Your task to perform on an android device: Check the weather Image 0: 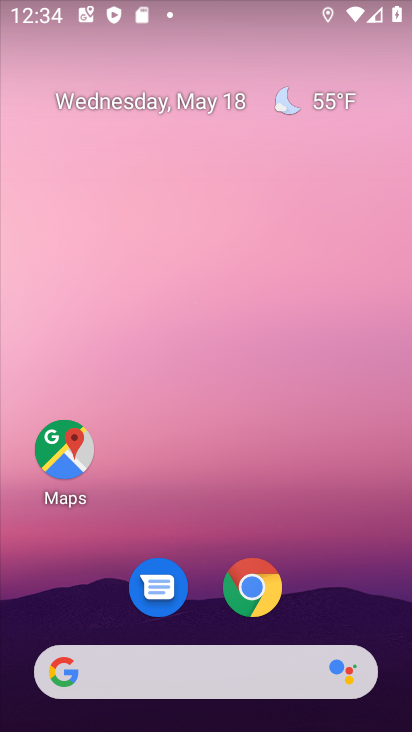
Step 0: click (200, 671)
Your task to perform on an android device: Check the weather Image 1: 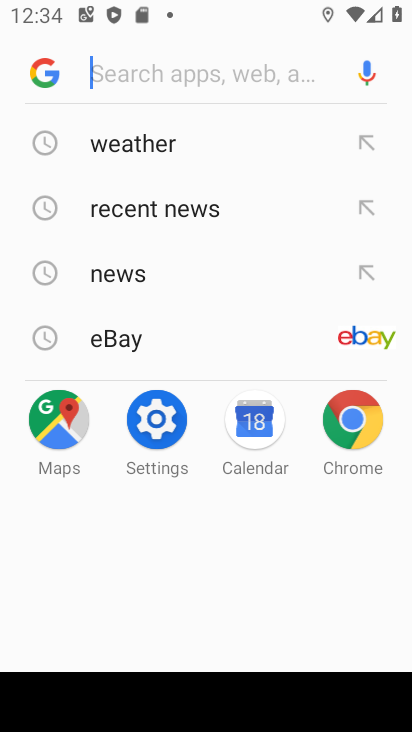
Step 1: click (169, 149)
Your task to perform on an android device: Check the weather Image 2: 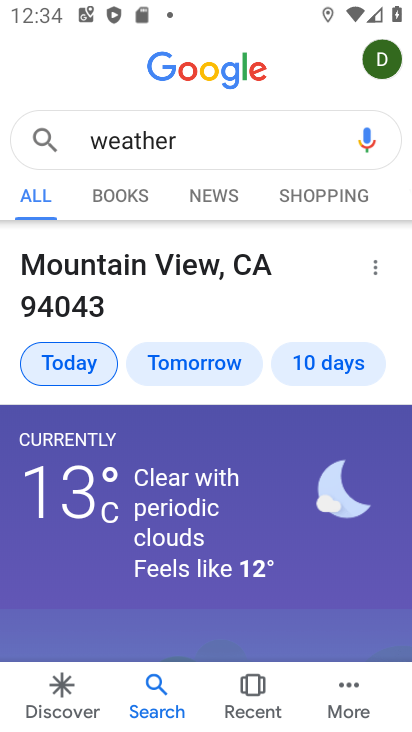
Step 2: task complete